Your task to perform on an android device: Play the last video I watched on Youtube Image 0: 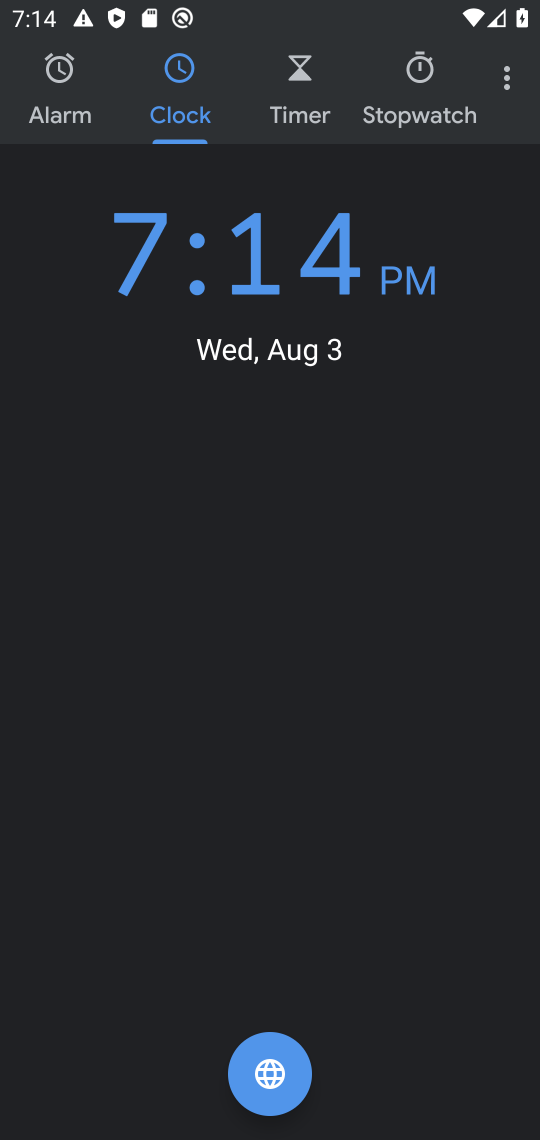
Step 0: press home button
Your task to perform on an android device: Play the last video I watched on Youtube Image 1: 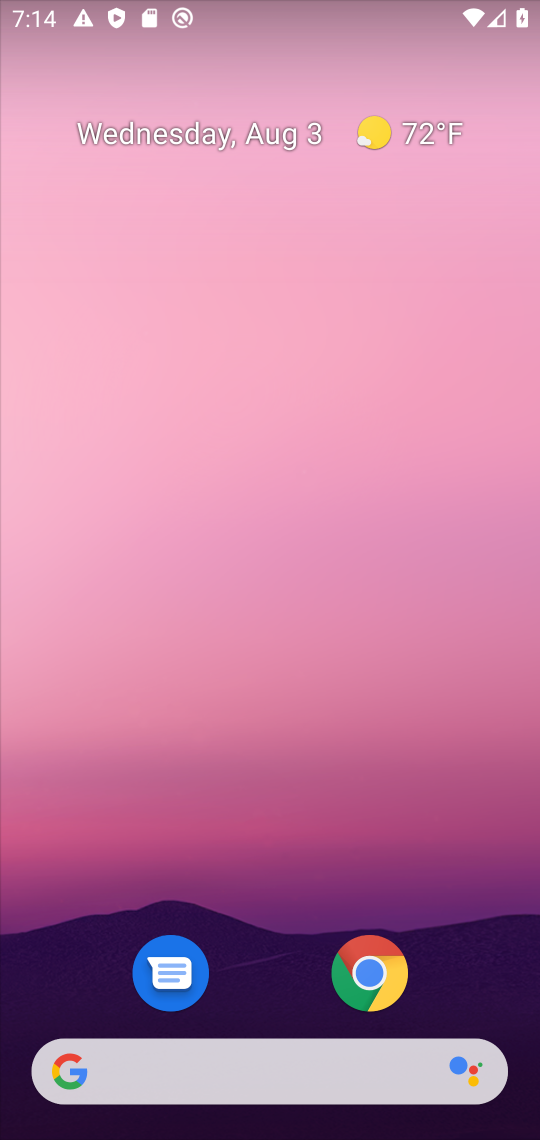
Step 1: drag from (294, 712) to (264, 1)
Your task to perform on an android device: Play the last video I watched on Youtube Image 2: 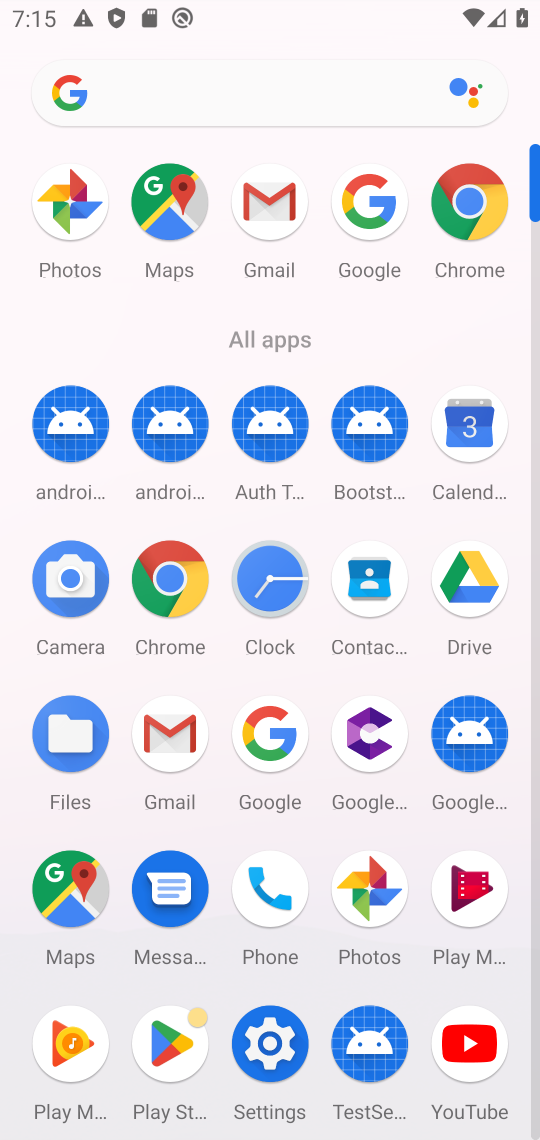
Step 2: click (479, 1054)
Your task to perform on an android device: Play the last video I watched on Youtube Image 3: 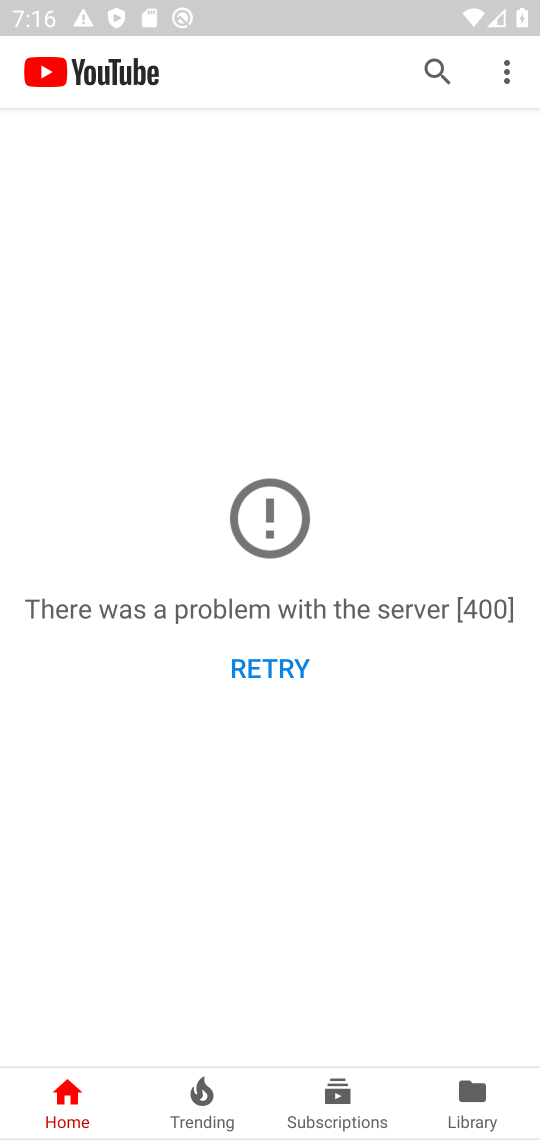
Step 3: click (460, 1110)
Your task to perform on an android device: Play the last video I watched on Youtube Image 4: 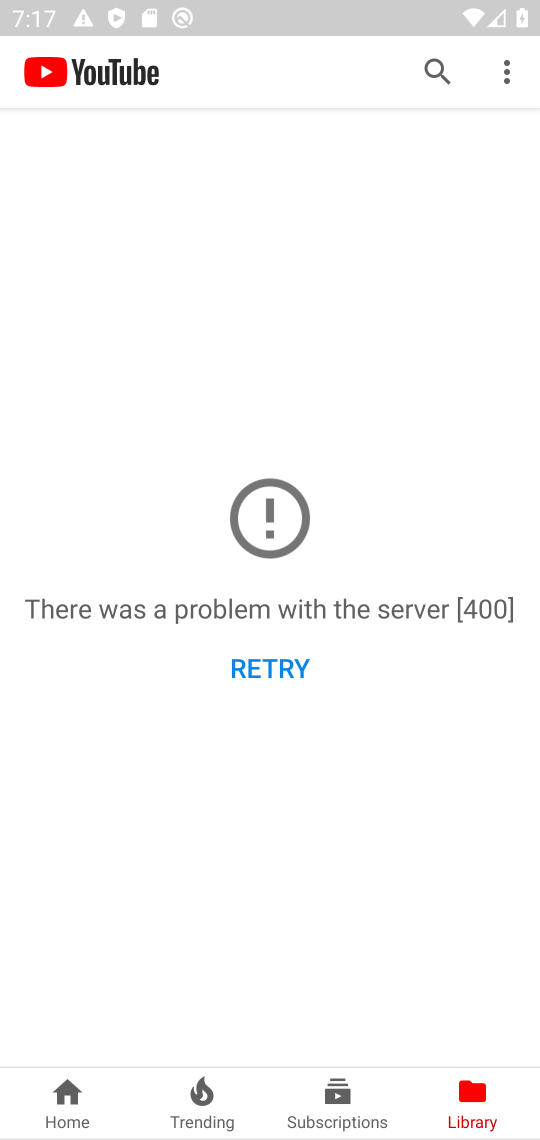
Step 4: task complete